Your task to perform on an android device: add a contact in the contacts app Image 0: 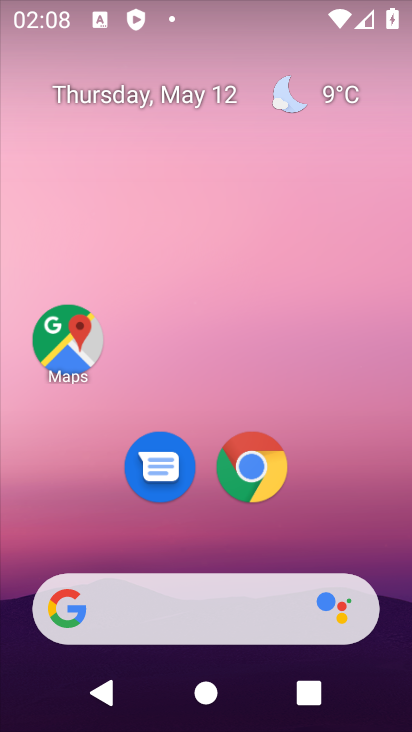
Step 0: drag from (332, 585) to (344, 205)
Your task to perform on an android device: add a contact in the contacts app Image 1: 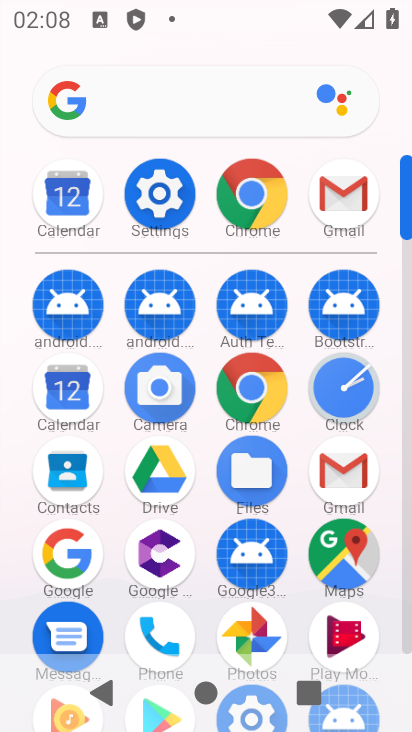
Step 1: click (148, 615)
Your task to perform on an android device: add a contact in the contacts app Image 2: 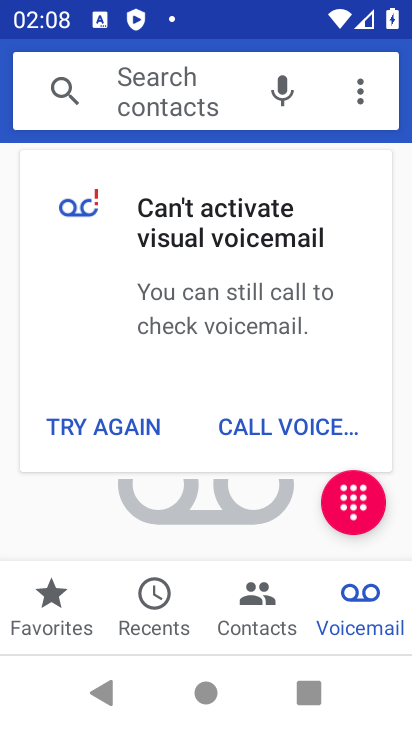
Step 2: click (126, 419)
Your task to perform on an android device: add a contact in the contacts app Image 3: 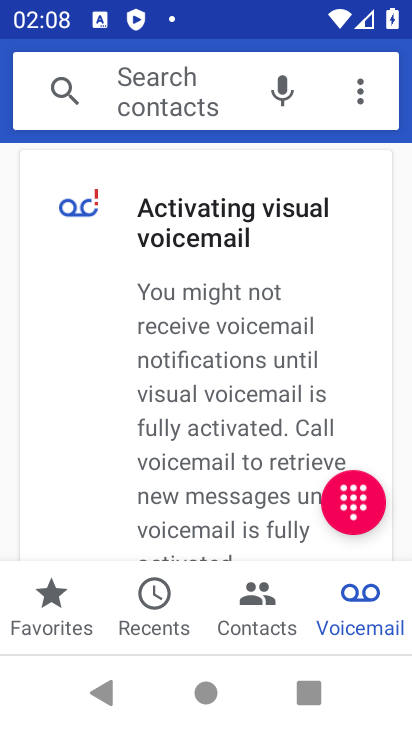
Step 3: click (249, 613)
Your task to perform on an android device: add a contact in the contacts app Image 4: 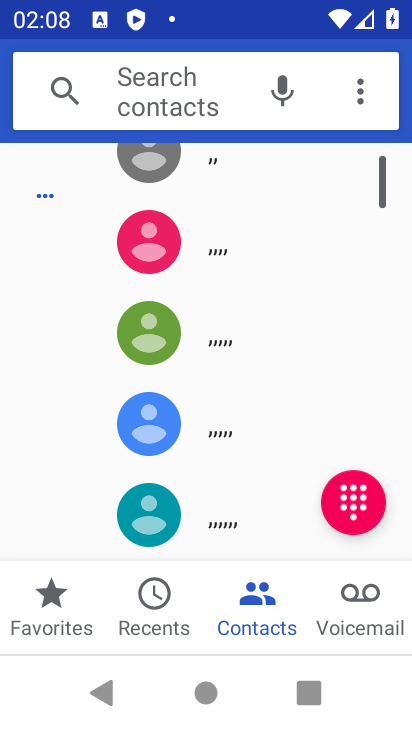
Step 4: drag from (230, 237) to (230, 568)
Your task to perform on an android device: add a contact in the contacts app Image 5: 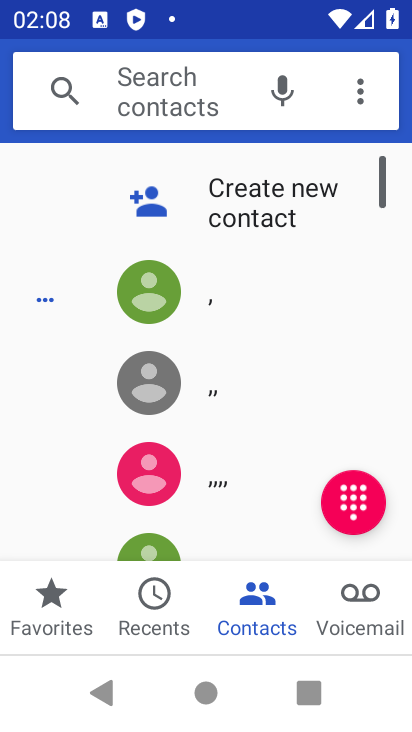
Step 5: click (251, 212)
Your task to perform on an android device: add a contact in the contacts app Image 6: 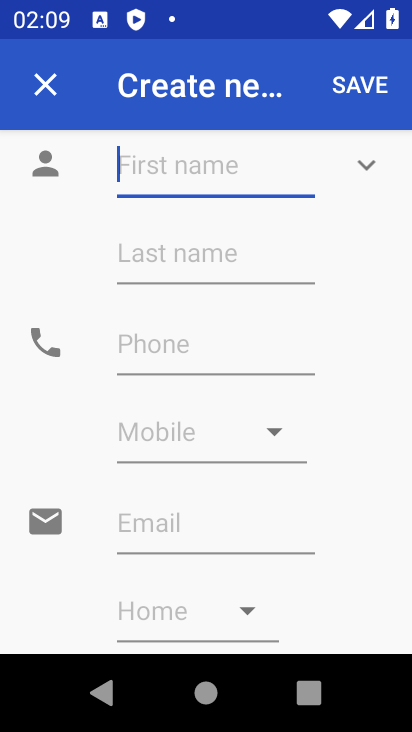
Step 6: click (173, 169)
Your task to perform on an android device: add a contact in the contacts app Image 7: 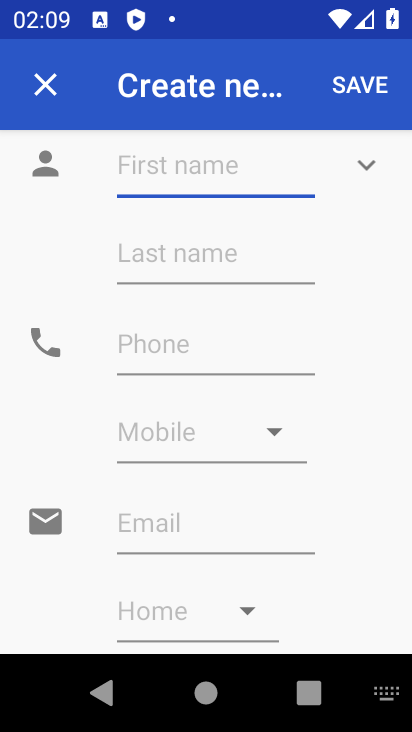
Step 7: type "hjhjhghghg"
Your task to perform on an android device: add a contact in the contacts app Image 8: 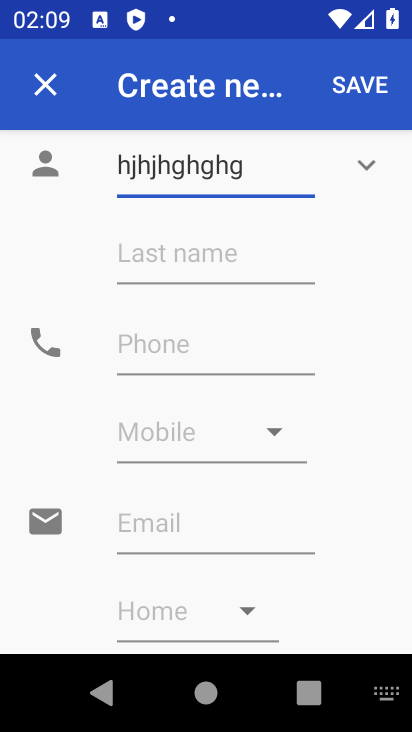
Step 8: click (203, 349)
Your task to perform on an android device: add a contact in the contacts app Image 9: 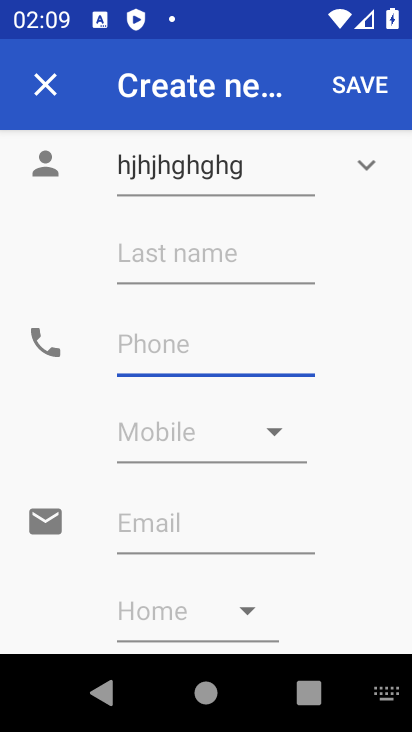
Step 9: type "9898989998"
Your task to perform on an android device: add a contact in the contacts app Image 10: 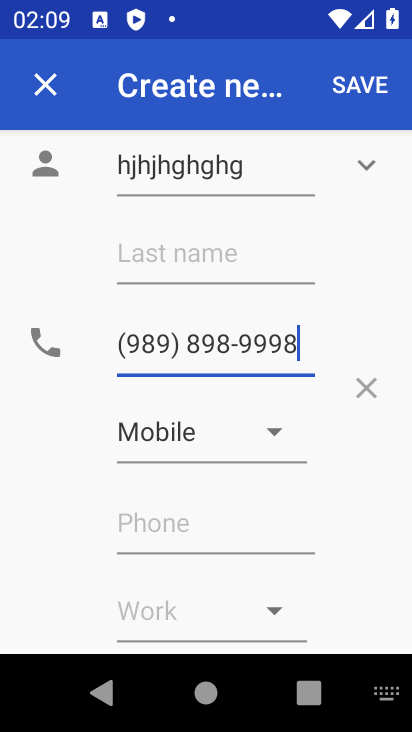
Step 10: click (363, 88)
Your task to perform on an android device: add a contact in the contacts app Image 11: 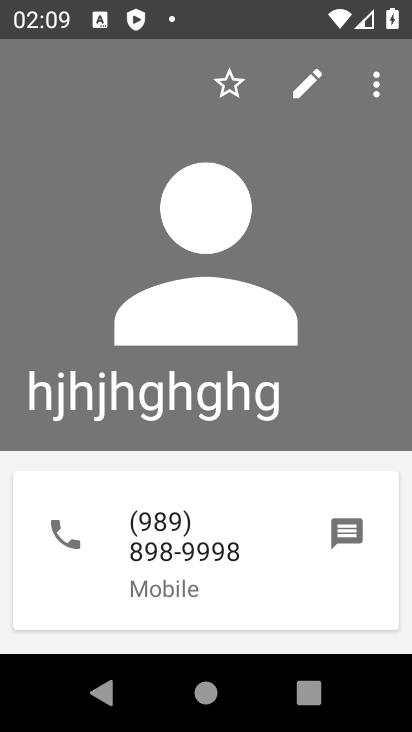
Step 11: task complete